Your task to perform on an android device: see tabs open on other devices in the chrome app Image 0: 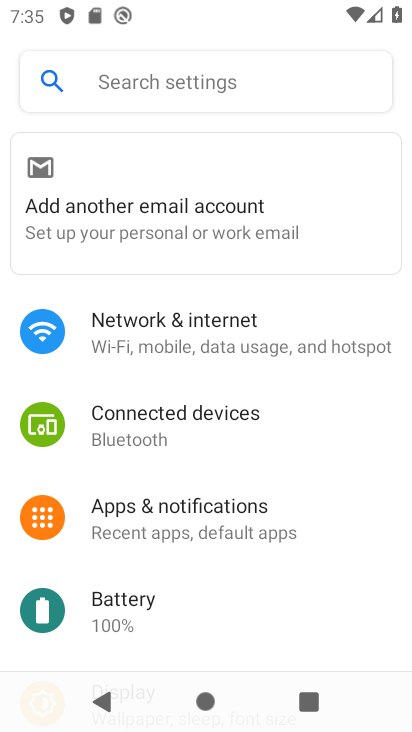
Step 0: press home button
Your task to perform on an android device: see tabs open on other devices in the chrome app Image 1: 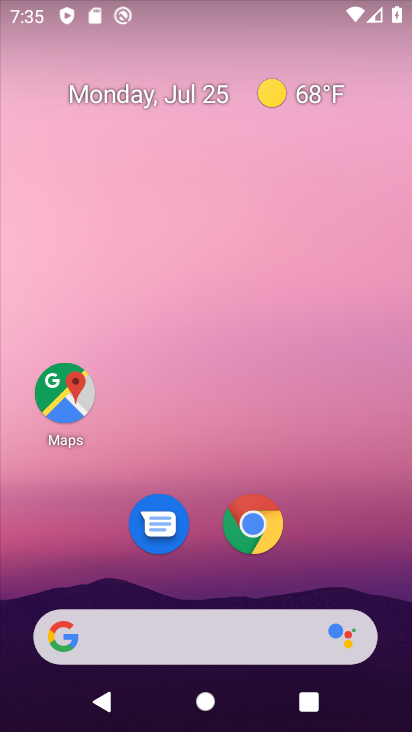
Step 1: click (261, 521)
Your task to perform on an android device: see tabs open on other devices in the chrome app Image 2: 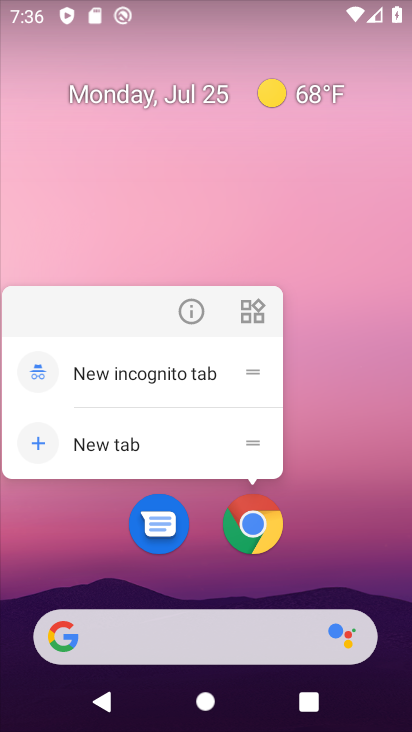
Step 2: click (261, 521)
Your task to perform on an android device: see tabs open on other devices in the chrome app Image 3: 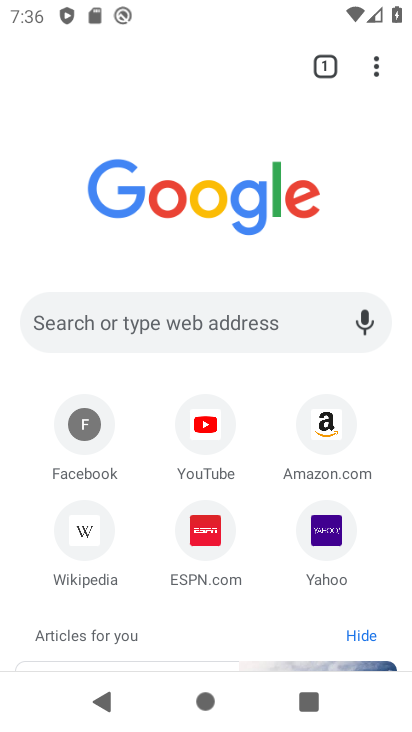
Step 3: click (376, 68)
Your task to perform on an android device: see tabs open on other devices in the chrome app Image 4: 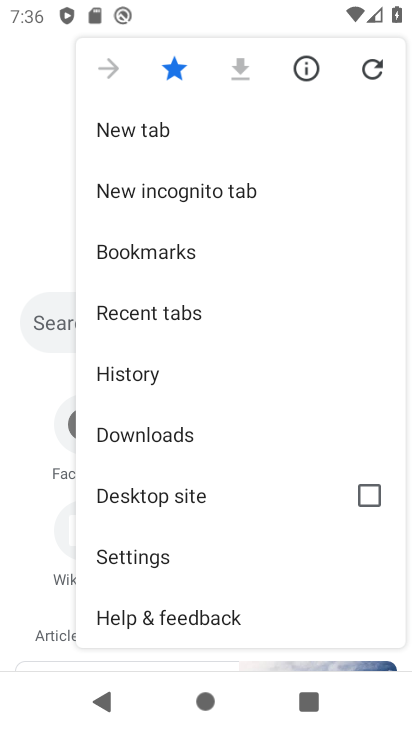
Step 4: click (184, 314)
Your task to perform on an android device: see tabs open on other devices in the chrome app Image 5: 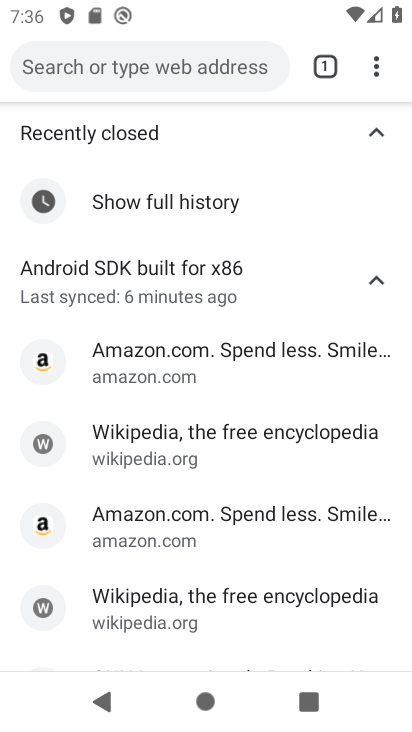
Step 5: task complete